Your task to perform on an android device: Open wifi settings Image 0: 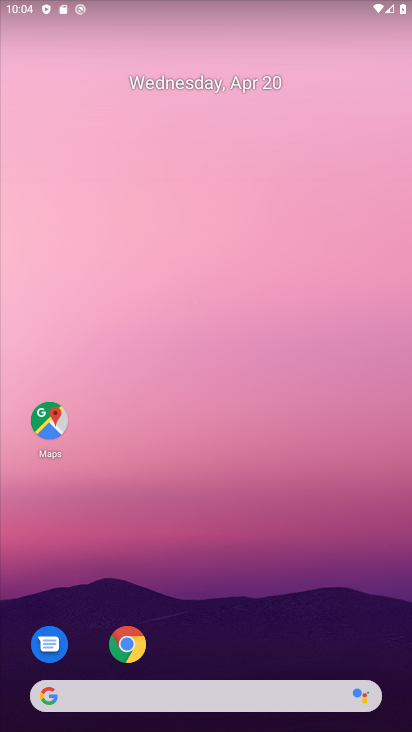
Step 0: drag from (199, 421) to (235, 47)
Your task to perform on an android device: Open wifi settings Image 1: 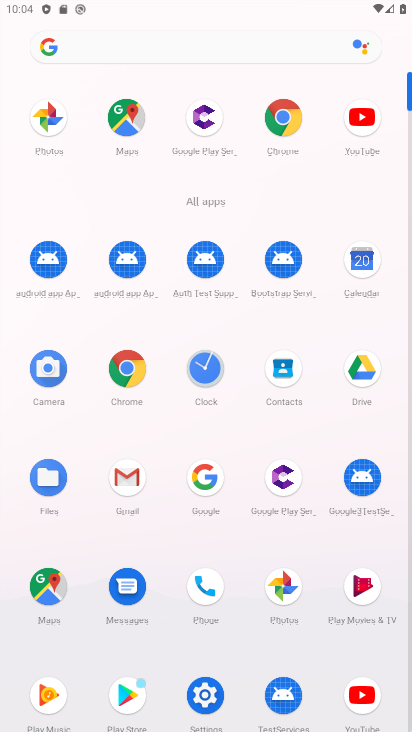
Step 1: click (202, 690)
Your task to perform on an android device: Open wifi settings Image 2: 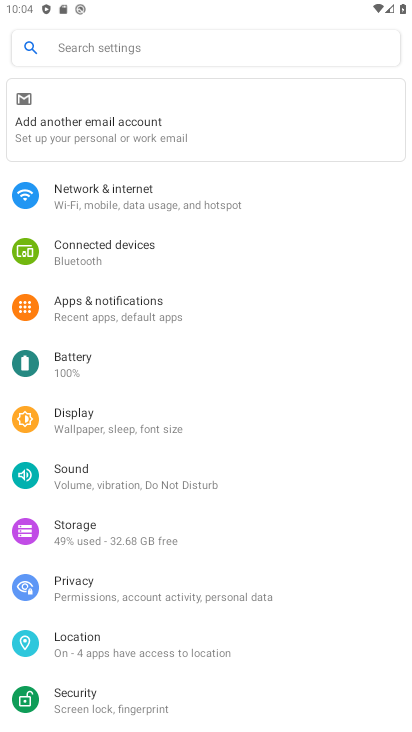
Step 2: click (121, 188)
Your task to perform on an android device: Open wifi settings Image 3: 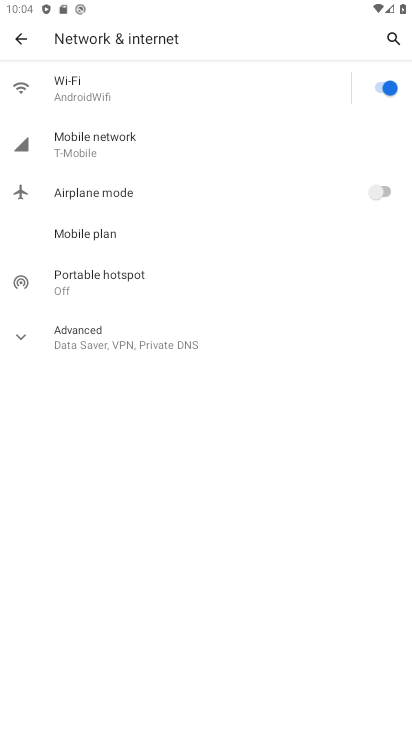
Step 3: click (154, 81)
Your task to perform on an android device: Open wifi settings Image 4: 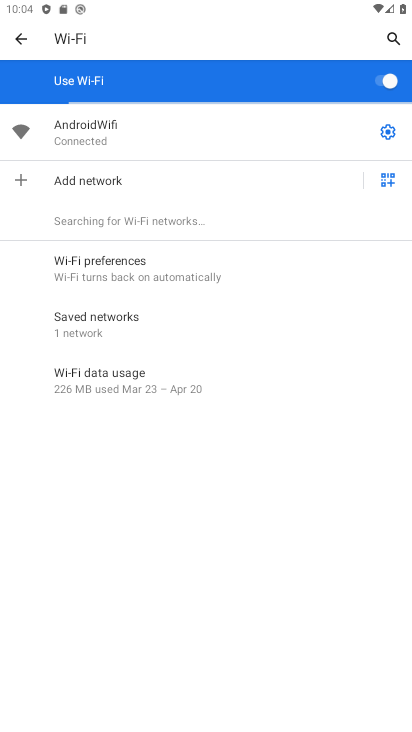
Step 4: task complete